Your task to perform on an android device: turn on wifi Image 0: 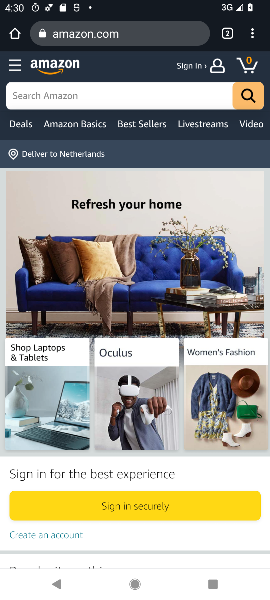
Step 0: press home button
Your task to perform on an android device: turn on wifi Image 1: 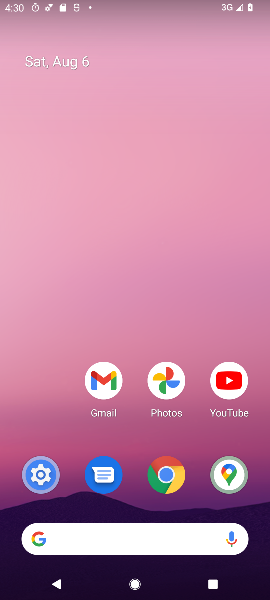
Step 1: click (38, 475)
Your task to perform on an android device: turn on wifi Image 2: 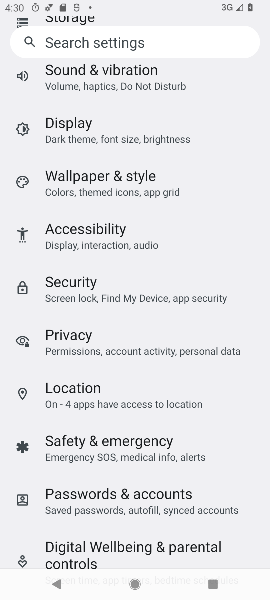
Step 2: drag from (238, 54) to (185, 283)
Your task to perform on an android device: turn on wifi Image 3: 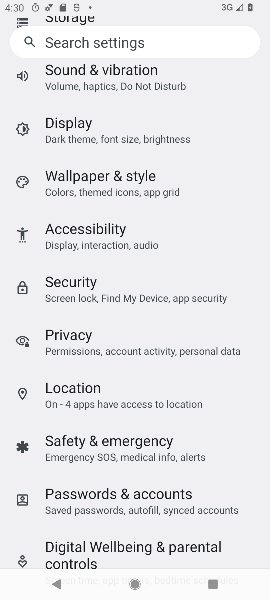
Step 3: drag from (229, 73) to (252, 334)
Your task to perform on an android device: turn on wifi Image 4: 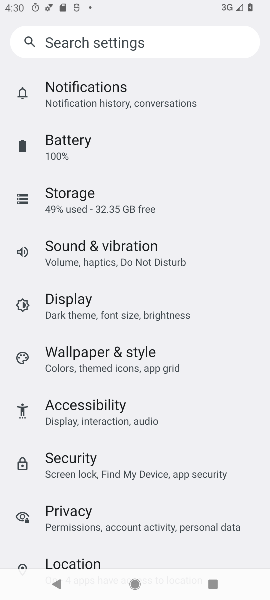
Step 4: drag from (236, 75) to (195, 398)
Your task to perform on an android device: turn on wifi Image 5: 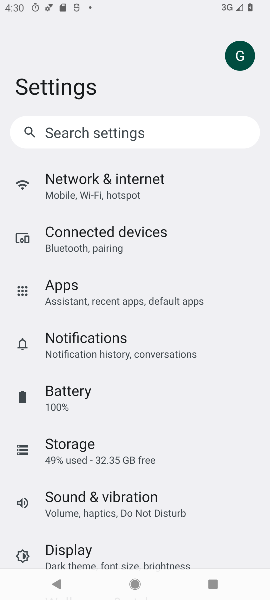
Step 5: click (84, 196)
Your task to perform on an android device: turn on wifi Image 6: 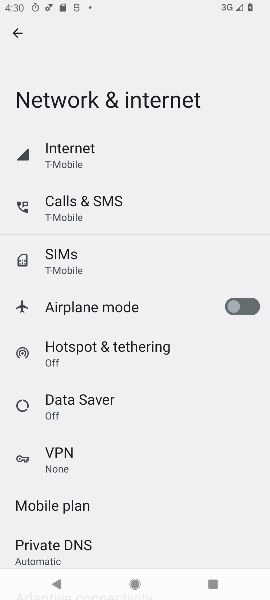
Step 6: click (64, 145)
Your task to perform on an android device: turn on wifi Image 7: 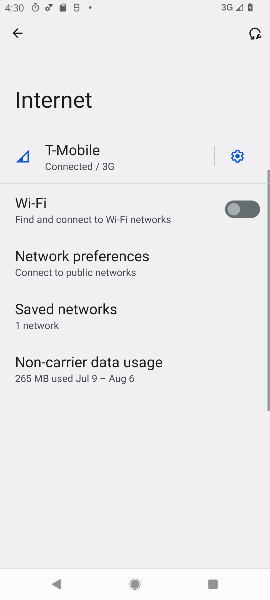
Step 7: click (236, 211)
Your task to perform on an android device: turn on wifi Image 8: 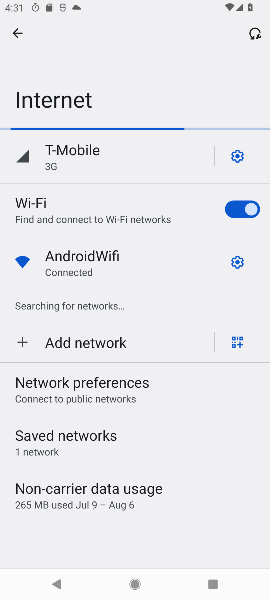
Step 8: task complete